Your task to perform on an android device: add a contact Image 0: 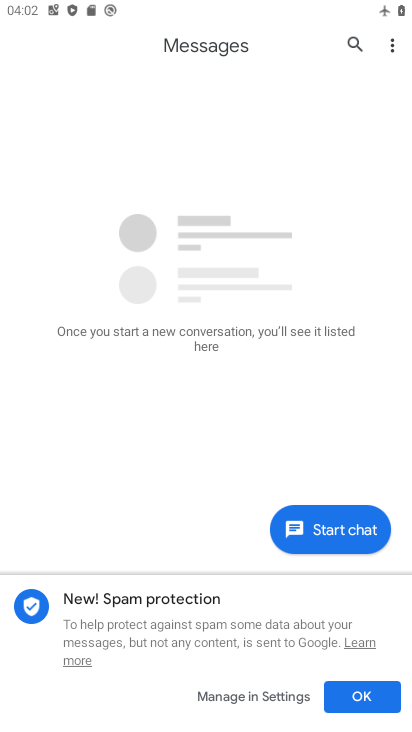
Step 0: press home button
Your task to perform on an android device: add a contact Image 1: 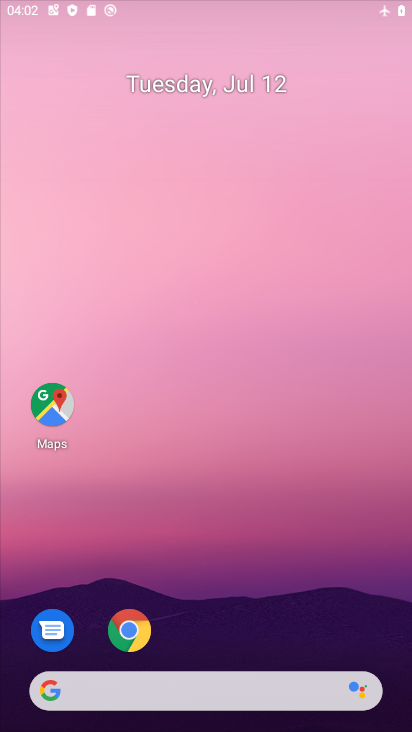
Step 1: drag from (250, 710) to (409, 421)
Your task to perform on an android device: add a contact Image 2: 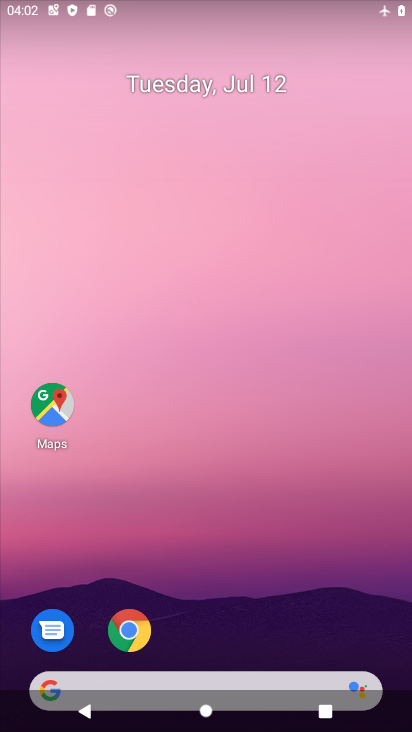
Step 2: click (286, 340)
Your task to perform on an android device: add a contact Image 3: 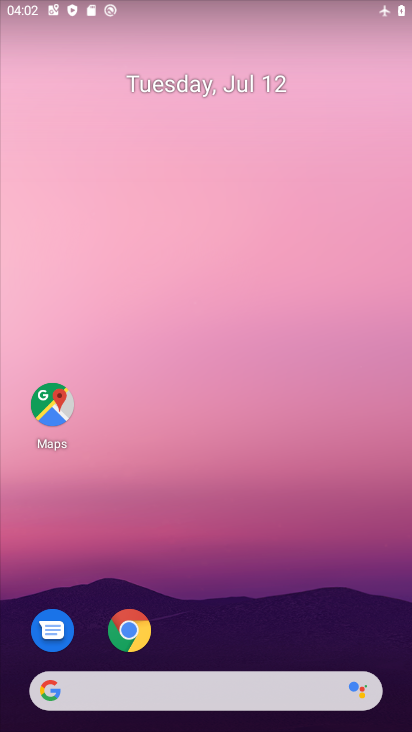
Step 3: drag from (254, 681) to (349, 3)
Your task to perform on an android device: add a contact Image 4: 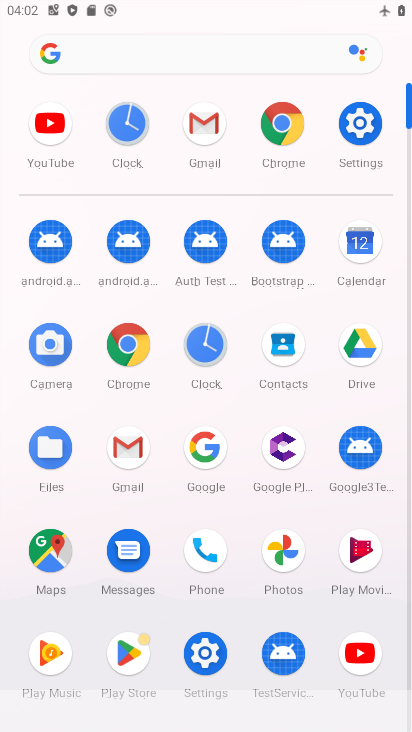
Step 4: click (273, 348)
Your task to perform on an android device: add a contact Image 5: 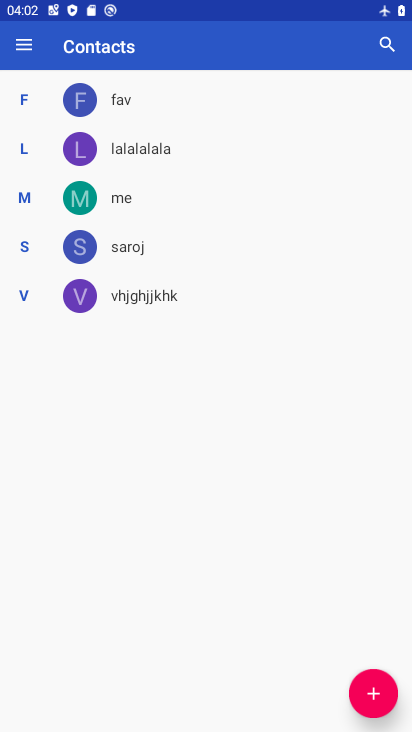
Step 5: click (379, 697)
Your task to perform on an android device: add a contact Image 6: 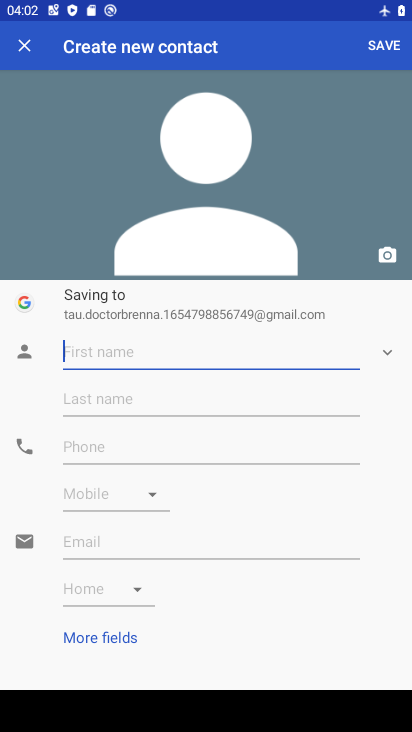
Step 6: click (193, 353)
Your task to perform on an android device: add a contact Image 7: 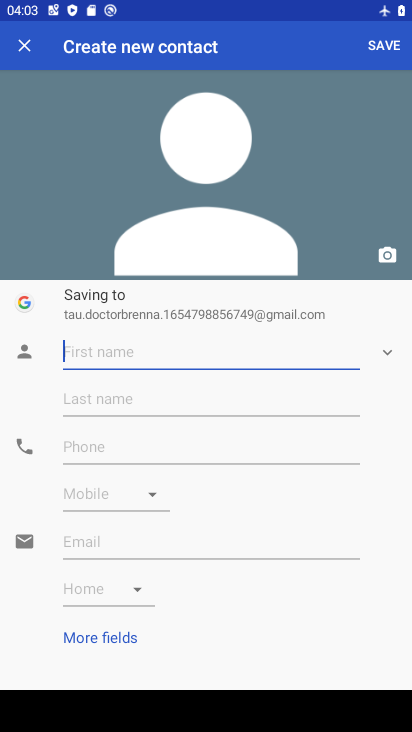
Step 7: type "chikki"
Your task to perform on an android device: add a contact Image 8: 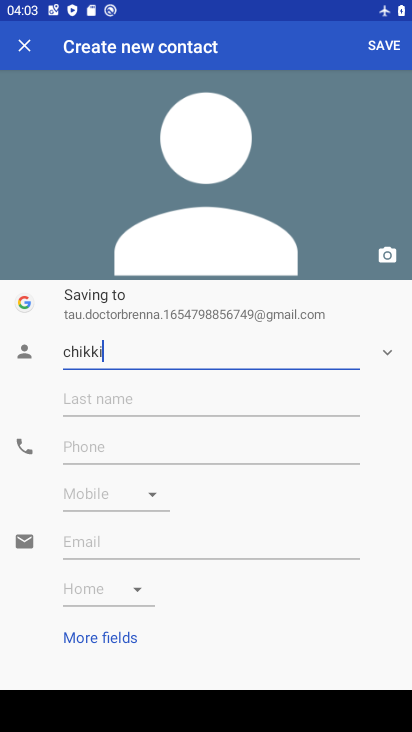
Step 8: click (75, 453)
Your task to perform on an android device: add a contact Image 9: 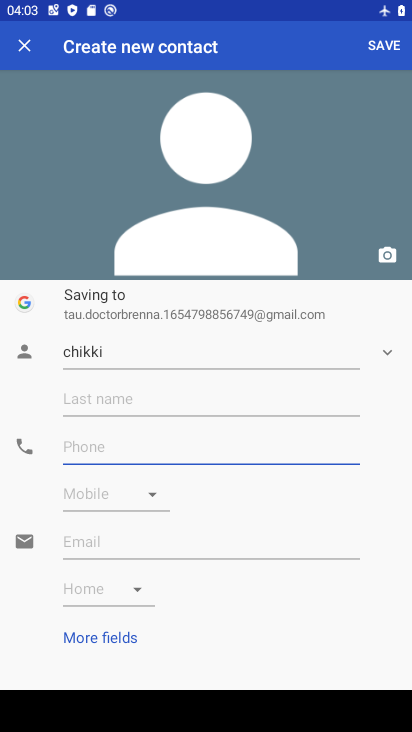
Step 9: type "9897676756"
Your task to perform on an android device: add a contact Image 10: 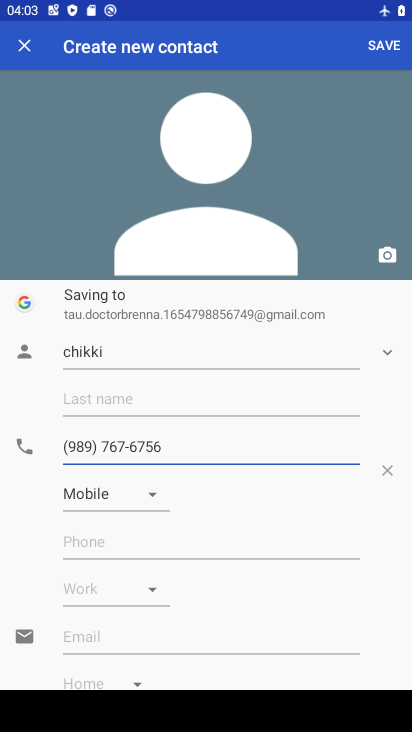
Step 10: click (383, 38)
Your task to perform on an android device: add a contact Image 11: 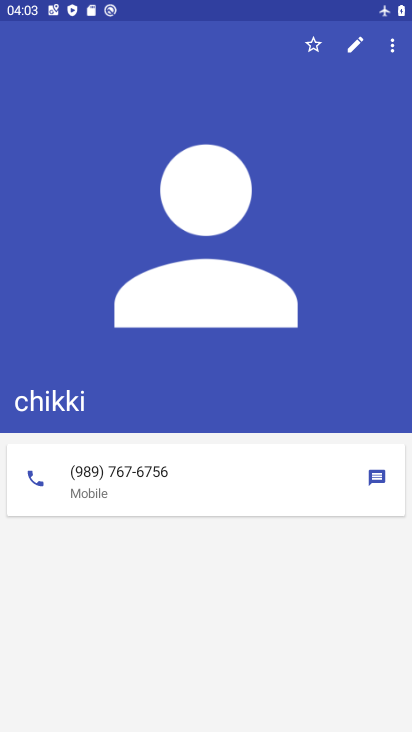
Step 11: task complete